Your task to perform on an android device: check the backup settings in the google photos Image 0: 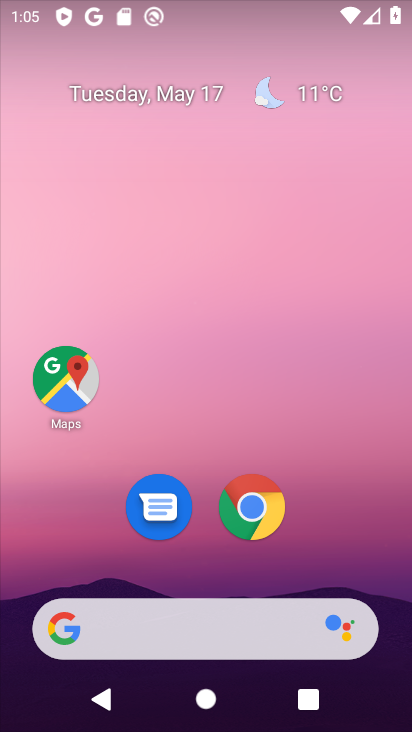
Step 0: drag from (169, 566) to (146, 126)
Your task to perform on an android device: check the backup settings in the google photos Image 1: 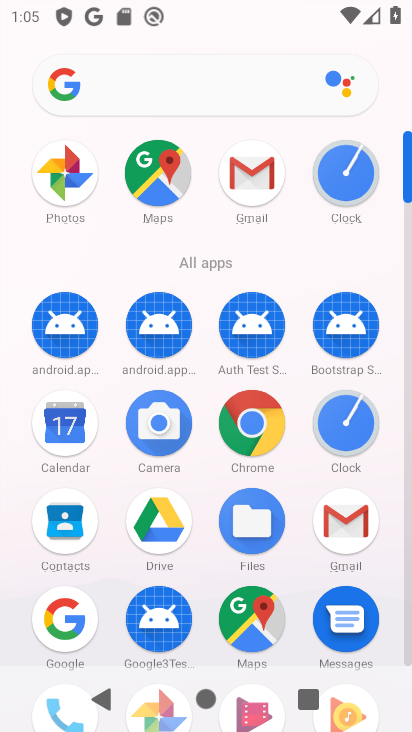
Step 1: drag from (114, 563) to (140, 174)
Your task to perform on an android device: check the backup settings in the google photos Image 2: 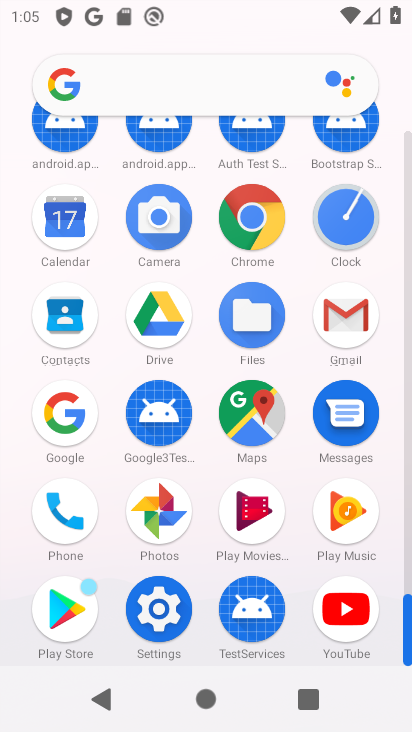
Step 2: click (157, 508)
Your task to perform on an android device: check the backup settings in the google photos Image 3: 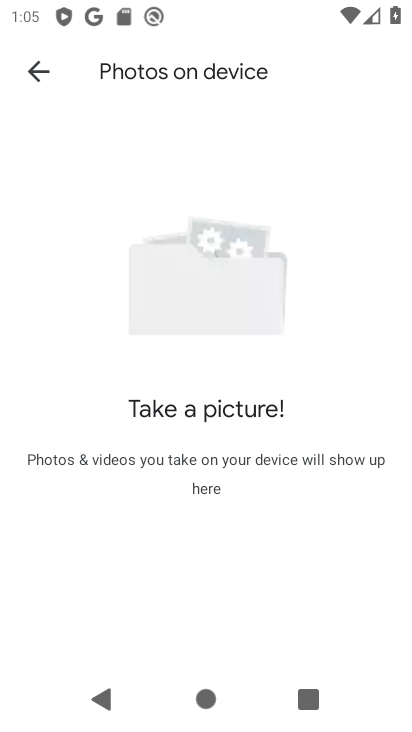
Step 3: press back button
Your task to perform on an android device: check the backup settings in the google photos Image 4: 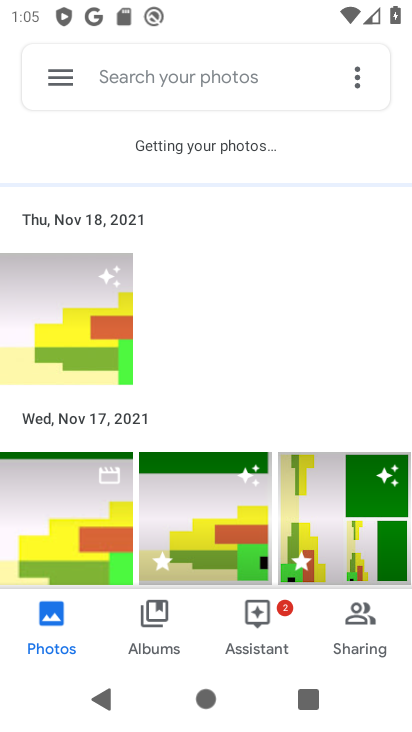
Step 4: click (50, 80)
Your task to perform on an android device: check the backup settings in the google photos Image 5: 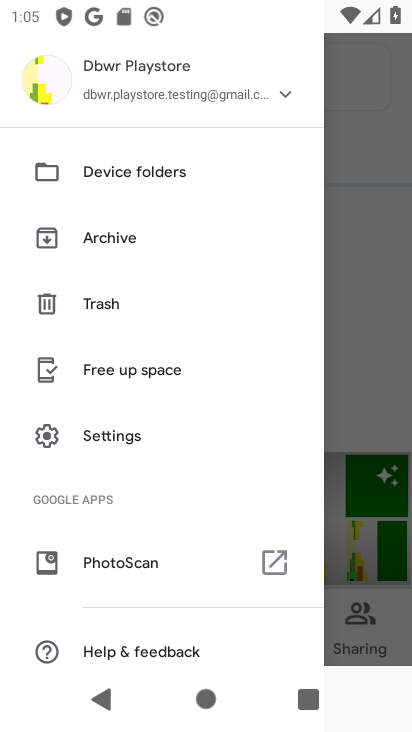
Step 5: drag from (111, 590) to (124, 213)
Your task to perform on an android device: check the backup settings in the google photos Image 6: 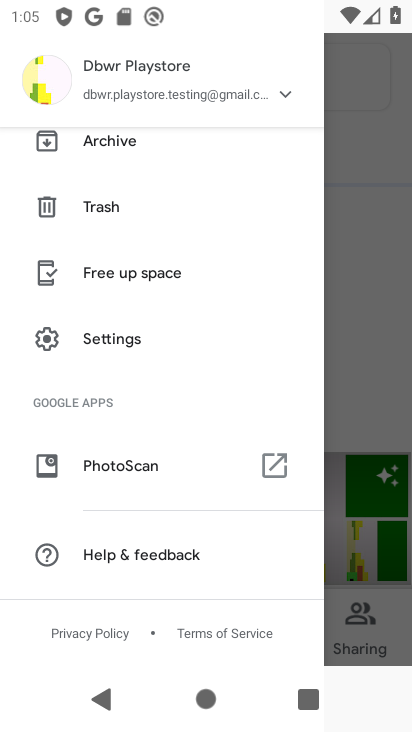
Step 6: click (99, 326)
Your task to perform on an android device: check the backup settings in the google photos Image 7: 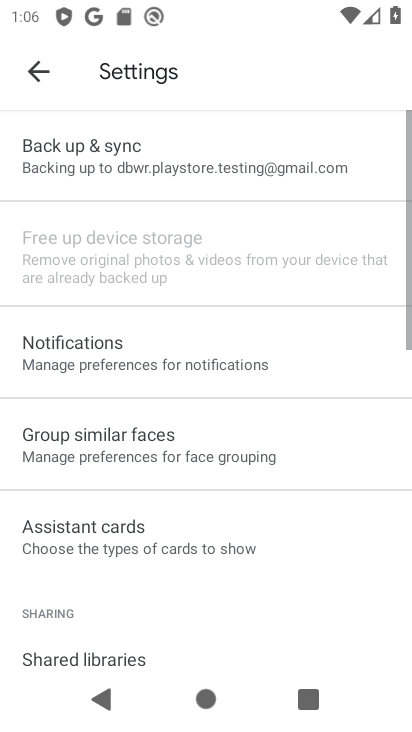
Step 7: click (106, 150)
Your task to perform on an android device: check the backup settings in the google photos Image 8: 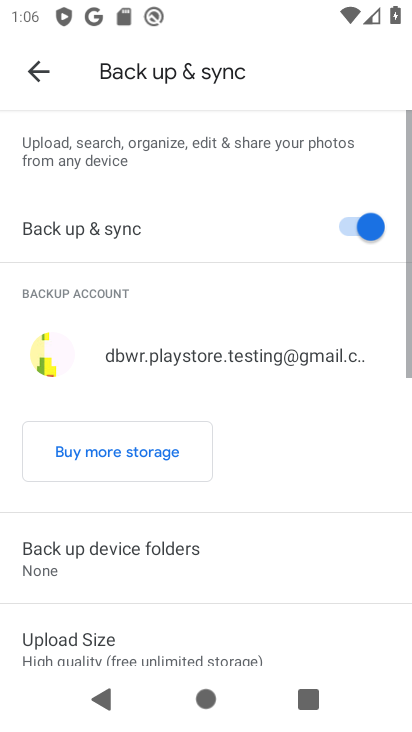
Step 8: task complete